Your task to perform on an android device: open app "Pandora - Music & Podcasts" (install if not already installed) and go to login screen Image 0: 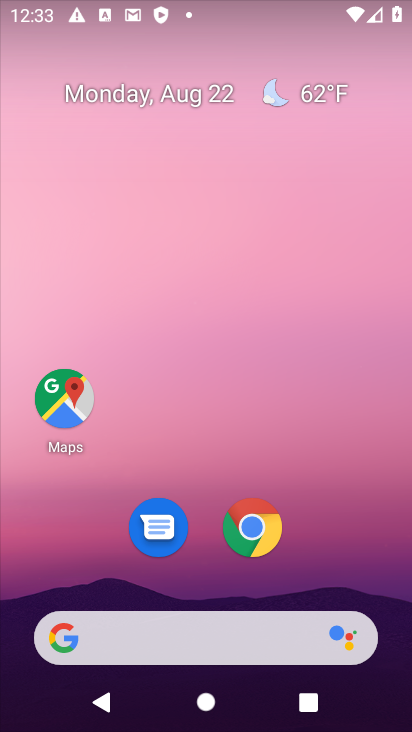
Step 0: click (250, 91)
Your task to perform on an android device: open app "Pandora - Music & Podcasts" (install if not already installed) and go to login screen Image 1: 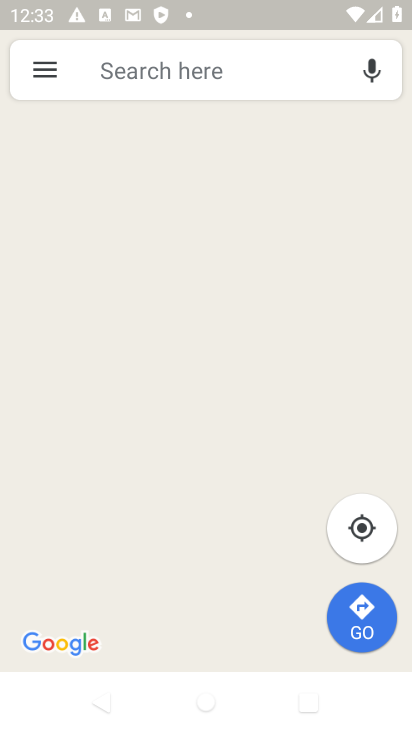
Step 1: press home button
Your task to perform on an android device: open app "Pandora - Music & Podcasts" (install if not already installed) and go to login screen Image 2: 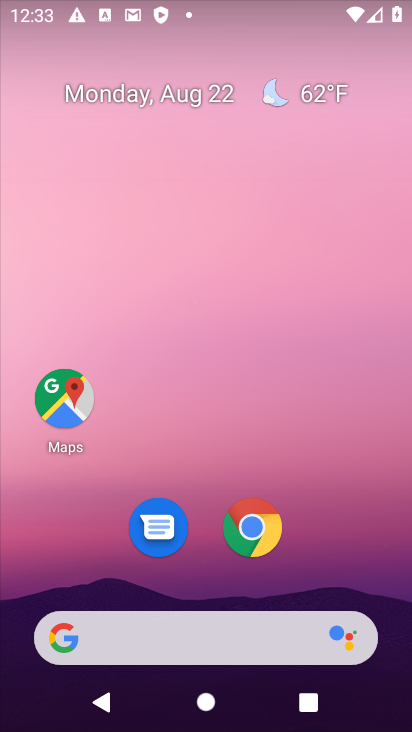
Step 2: drag from (206, 514) to (328, 13)
Your task to perform on an android device: open app "Pandora - Music & Podcasts" (install if not already installed) and go to login screen Image 3: 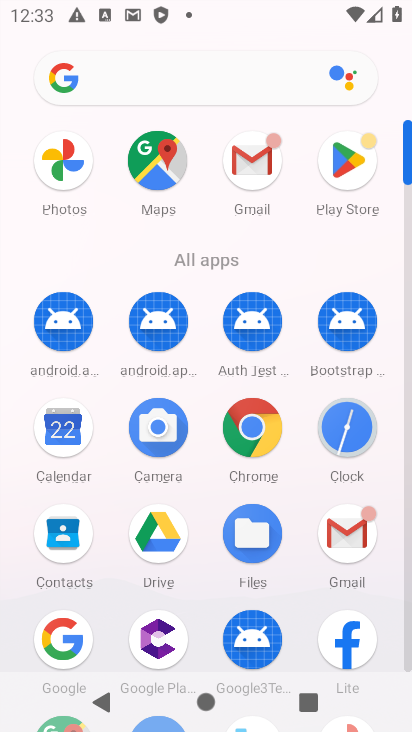
Step 3: click (337, 153)
Your task to perform on an android device: open app "Pandora - Music & Podcasts" (install if not already installed) and go to login screen Image 4: 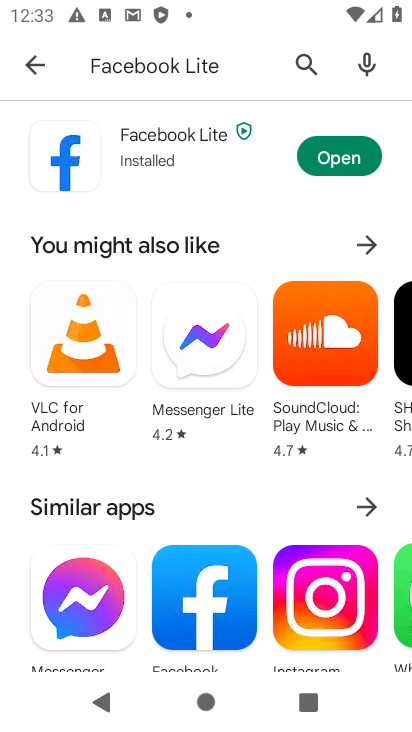
Step 4: press back button
Your task to perform on an android device: open app "Pandora - Music & Podcasts" (install if not already installed) and go to login screen Image 5: 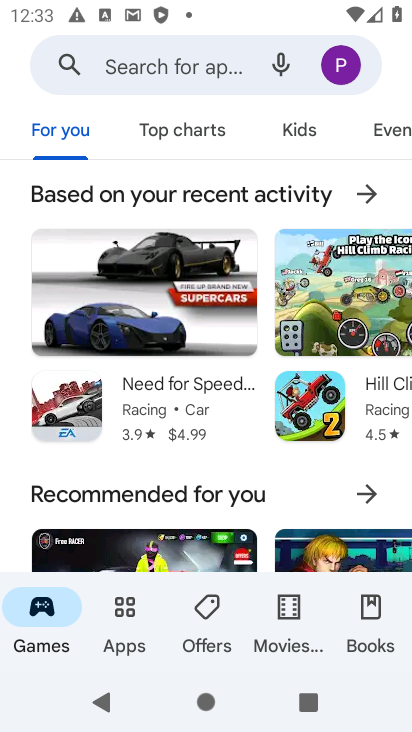
Step 5: click (182, 77)
Your task to perform on an android device: open app "Pandora - Music & Podcasts" (install if not already installed) and go to login screen Image 6: 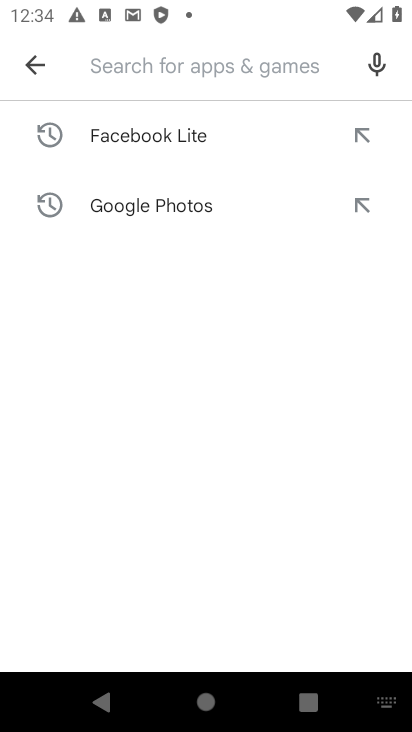
Step 6: type "Pandora - Music & Podcasts"
Your task to perform on an android device: open app "Pandora - Music & Podcasts" (install if not already installed) and go to login screen Image 7: 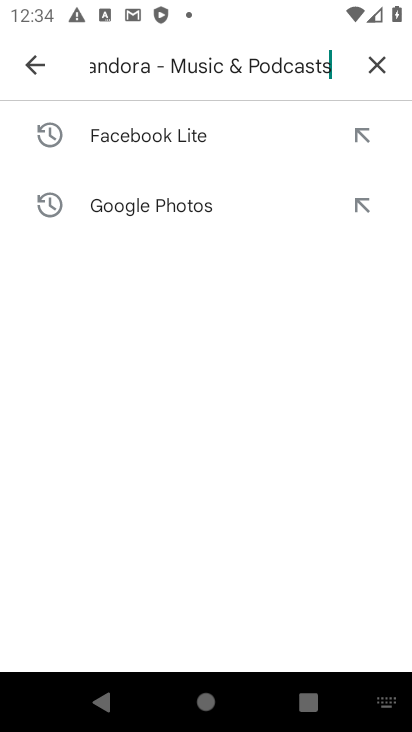
Step 7: press enter
Your task to perform on an android device: open app "Pandora - Music & Podcasts" (install if not already installed) and go to login screen Image 8: 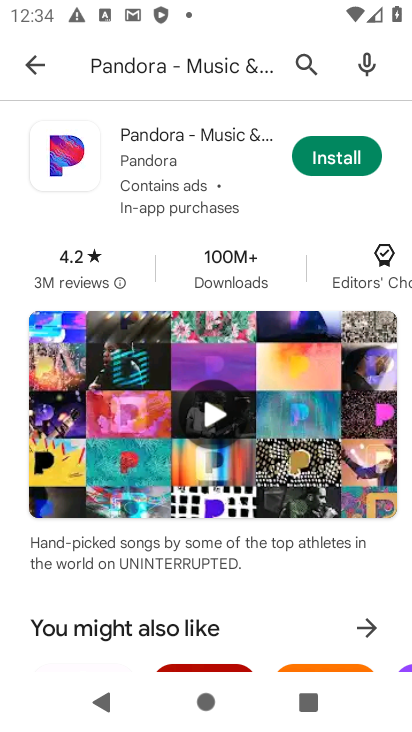
Step 8: click (334, 154)
Your task to perform on an android device: open app "Pandora - Music & Podcasts" (install if not already installed) and go to login screen Image 9: 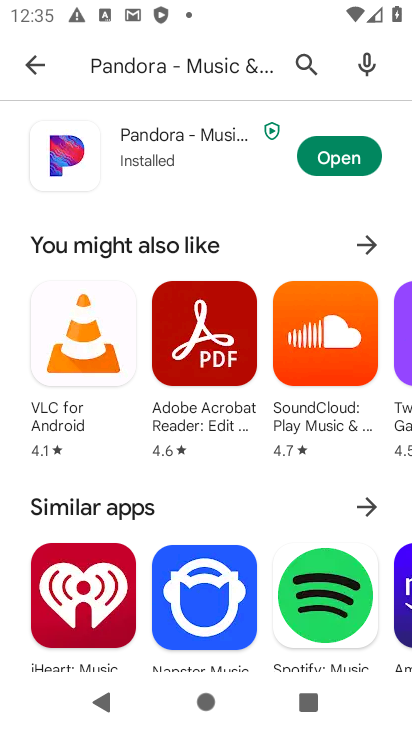
Step 9: click (346, 163)
Your task to perform on an android device: open app "Pandora - Music & Podcasts" (install if not already installed) and go to login screen Image 10: 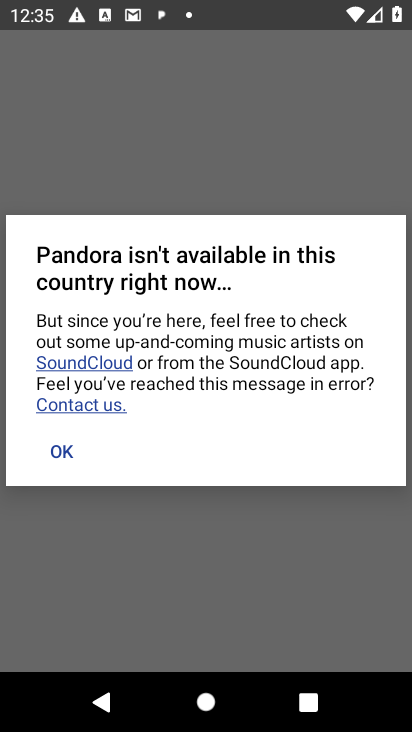
Step 10: click (55, 461)
Your task to perform on an android device: open app "Pandora - Music & Podcasts" (install if not already installed) and go to login screen Image 11: 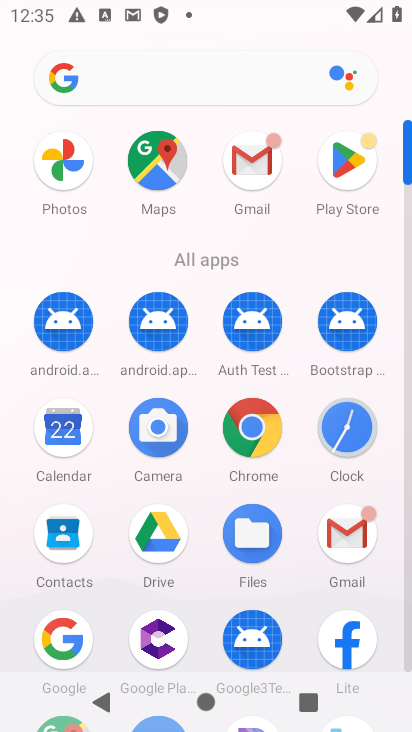
Step 11: click (355, 166)
Your task to perform on an android device: open app "Pandora - Music & Podcasts" (install if not already installed) and go to login screen Image 12: 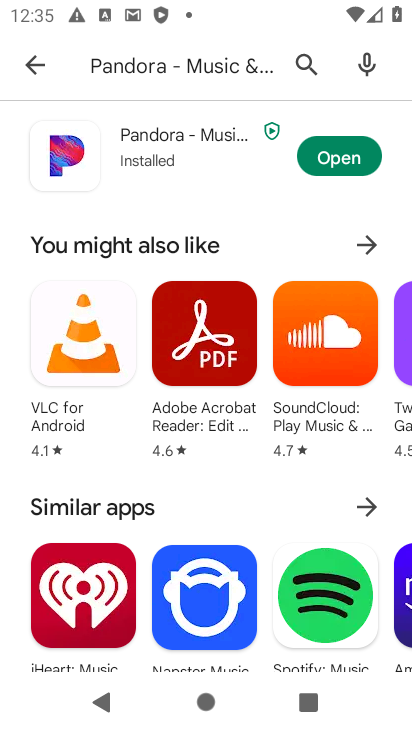
Step 12: click (357, 171)
Your task to perform on an android device: open app "Pandora - Music & Podcasts" (install if not already installed) and go to login screen Image 13: 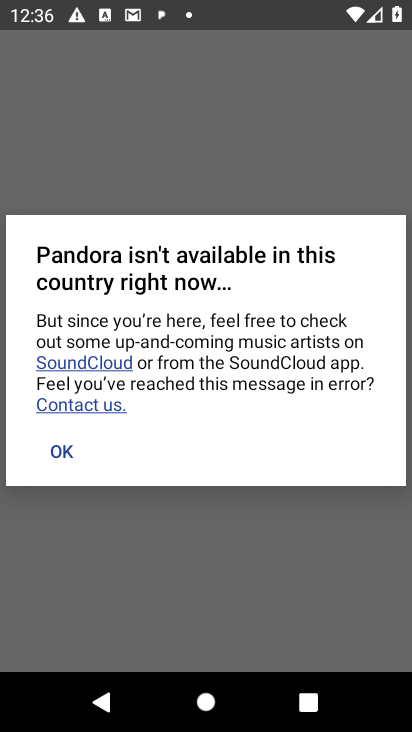
Step 13: click (73, 451)
Your task to perform on an android device: open app "Pandora - Music & Podcasts" (install if not already installed) and go to login screen Image 14: 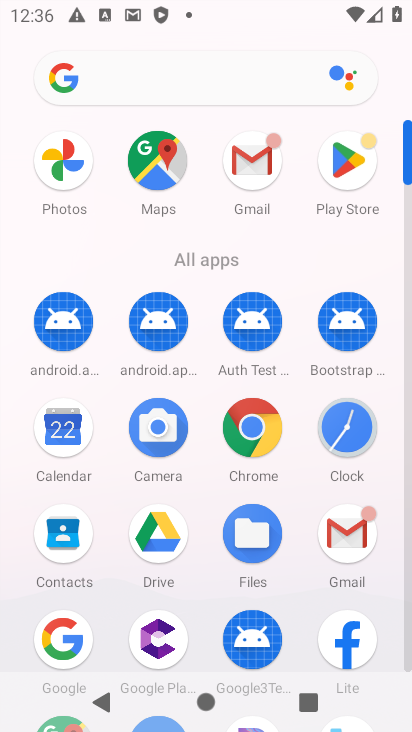
Step 14: task complete